Your task to perform on an android device: move an email to a new category in the gmail app Image 0: 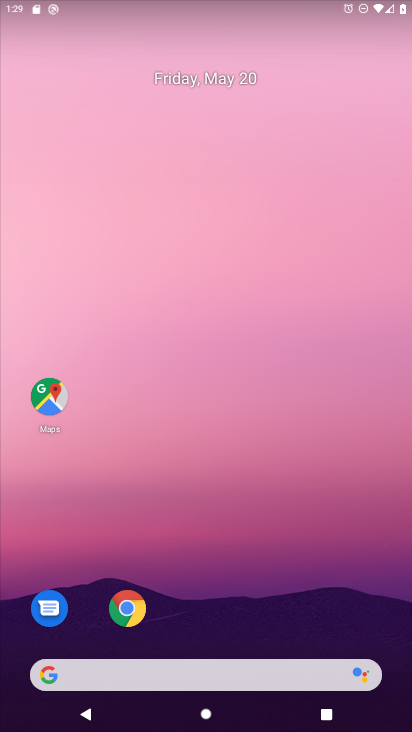
Step 0: press home button
Your task to perform on an android device: move an email to a new category in the gmail app Image 1: 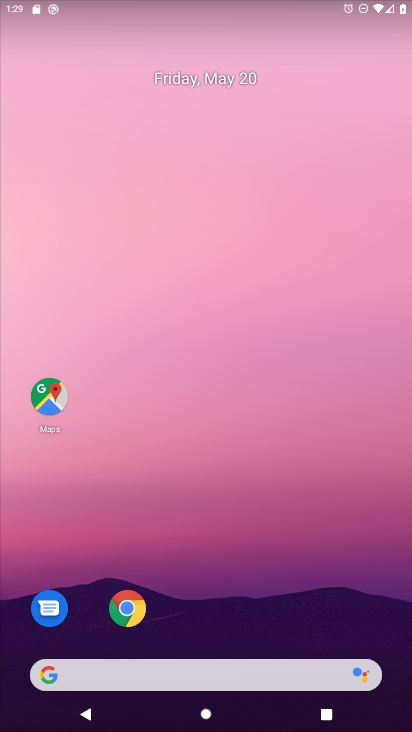
Step 1: drag from (321, 600) to (295, 33)
Your task to perform on an android device: move an email to a new category in the gmail app Image 2: 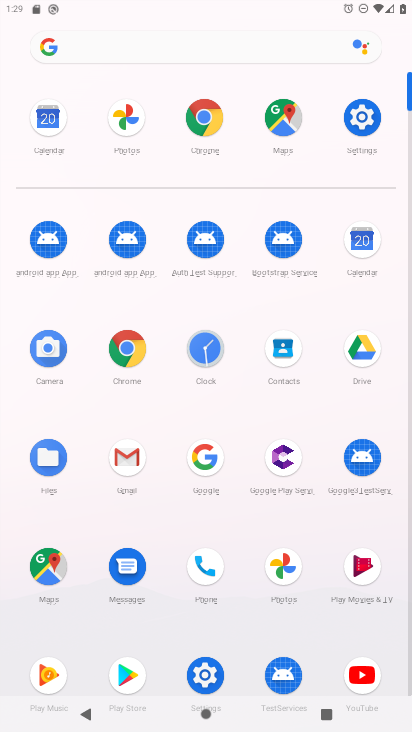
Step 2: click (118, 474)
Your task to perform on an android device: move an email to a new category in the gmail app Image 3: 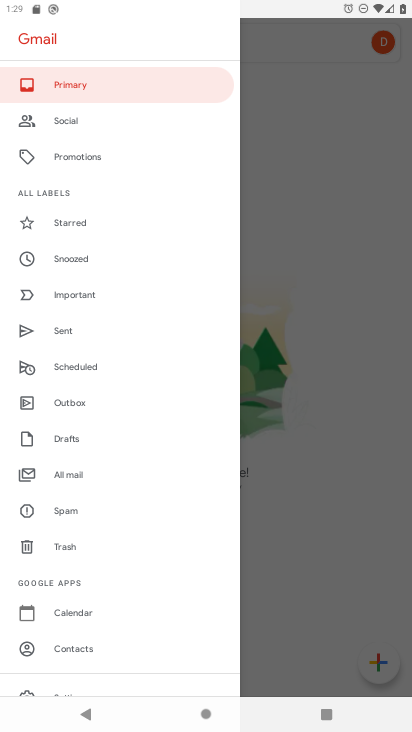
Step 3: task complete